Your task to perform on an android device: Open Android settings Image 0: 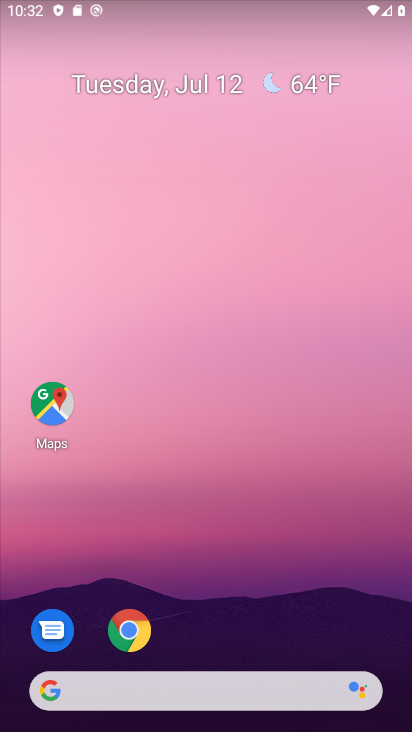
Step 0: drag from (293, 648) to (405, 0)
Your task to perform on an android device: Open Android settings Image 1: 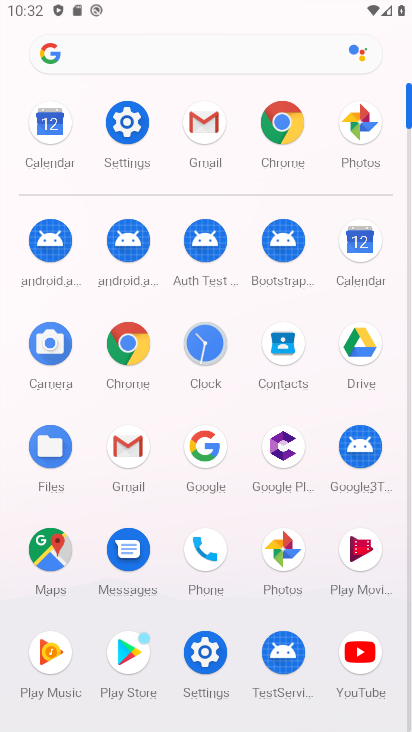
Step 1: click (134, 140)
Your task to perform on an android device: Open Android settings Image 2: 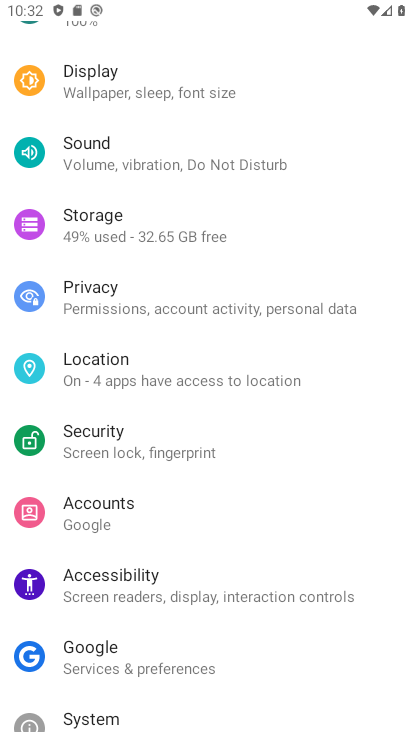
Step 2: drag from (357, 211) to (382, 319)
Your task to perform on an android device: Open Android settings Image 3: 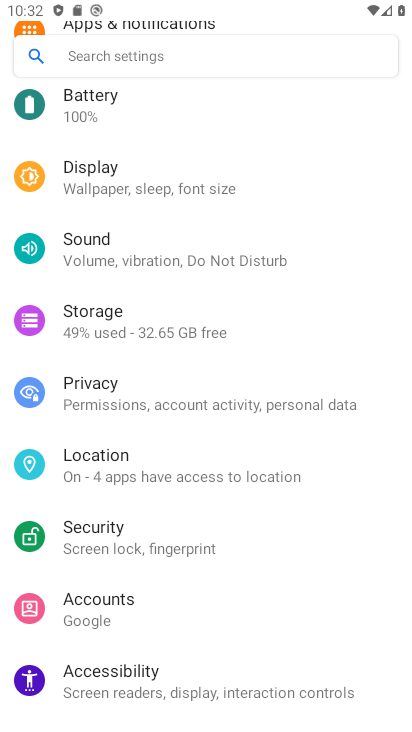
Step 3: drag from (379, 270) to (381, 324)
Your task to perform on an android device: Open Android settings Image 4: 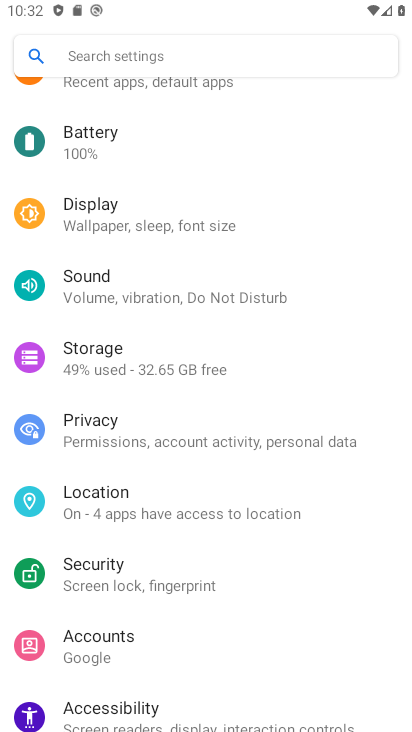
Step 4: drag from (376, 267) to (378, 349)
Your task to perform on an android device: Open Android settings Image 5: 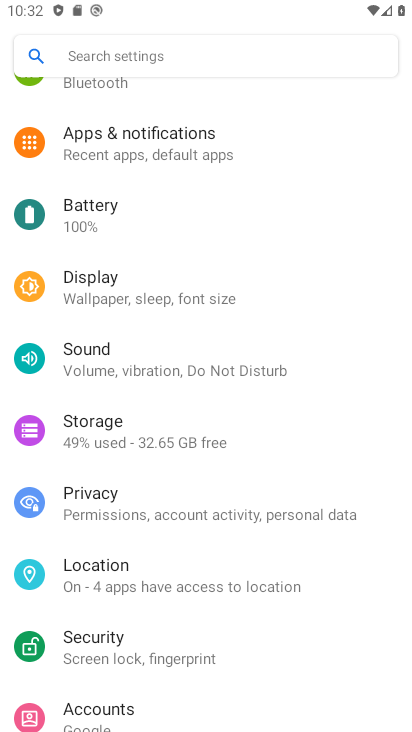
Step 5: drag from (362, 262) to (362, 329)
Your task to perform on an android device: Open Android settings Image 6: 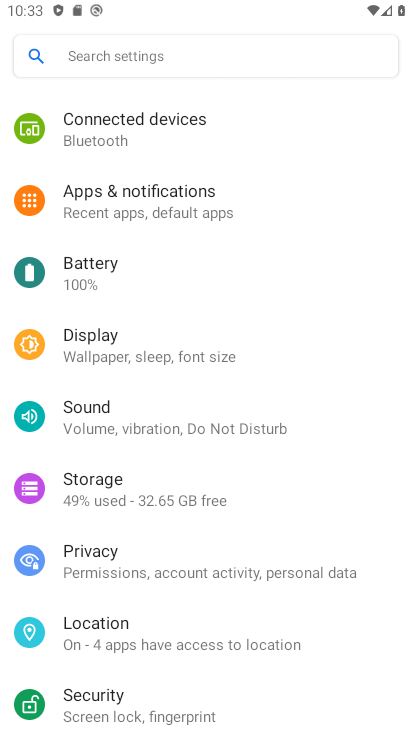
Step 6: drag from (368, 262) to (364, 362)
Your task to perform on an android device: Open Android settings Image 7: 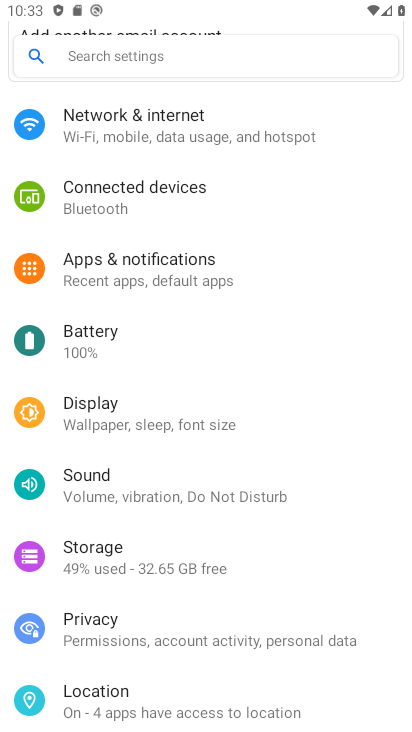
Step 7: drag from (360, 401) to (359, 333)
Your task to perform on an android device: Open Android settings Image 8: 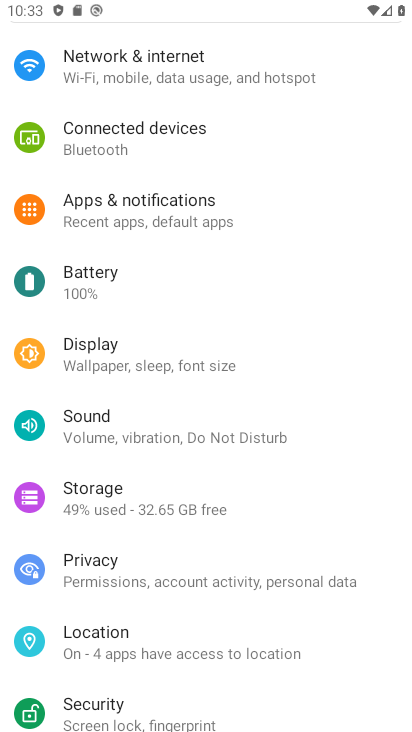
Step 8: drag from (351, 353) to (352, 284)
Your task to perform on an android device: Open Android settings Image 9: 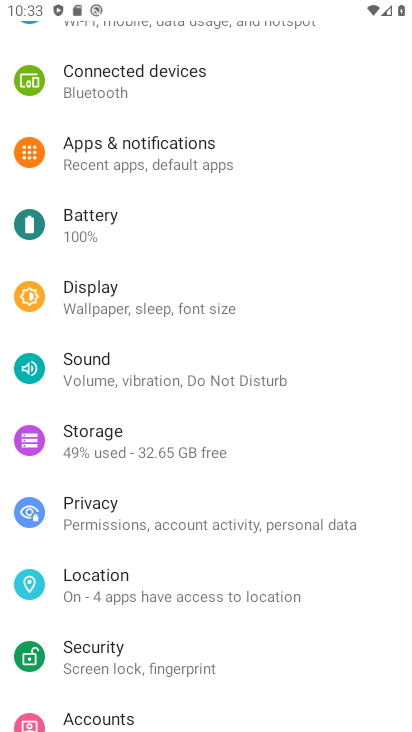
Step 9: drag from (348, 363) to (354, 289)
Your task to perform on an android device: Open Android settings Image 10: 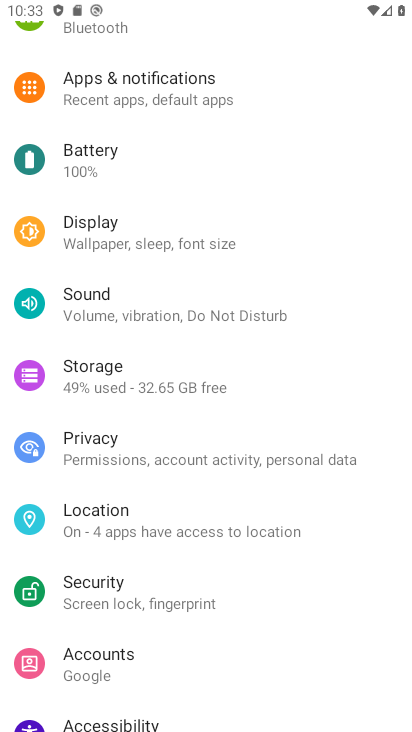
Step 10: drag from (345, 352) to (354, 287)
Your task to perform on an android device: Open Android settings Image 11: 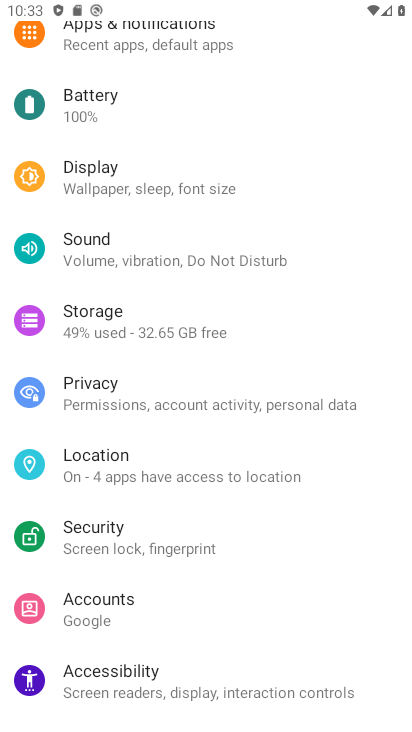
Step 11: drag from (352, 323) to (368, 262)
Your task to perform on an android device: Open Android settings Image 12: 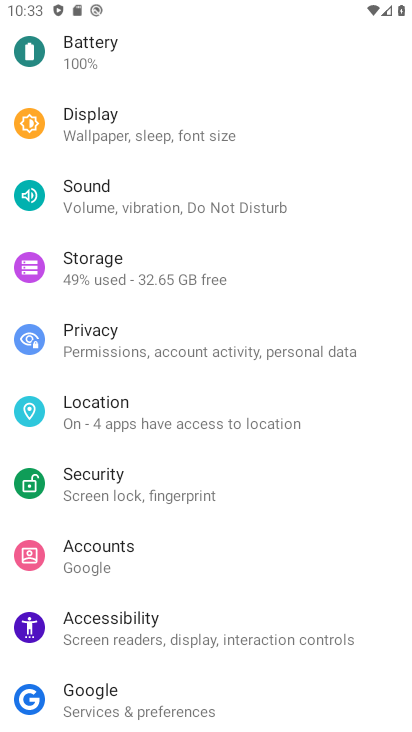
Step 12: drag from (375, 319) to (379, 260)
Your task to perform on an android device: Open Android settings Image 13: 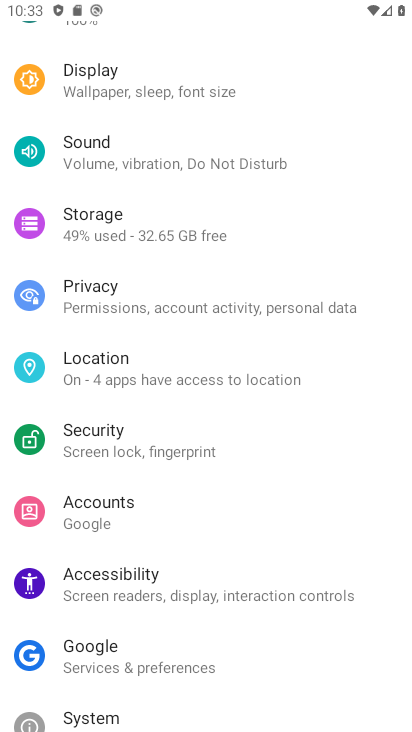
Step 13: drag from (363, 351) to (361, 268)
Your task to perform on an android device: Open Android settings Image 14: 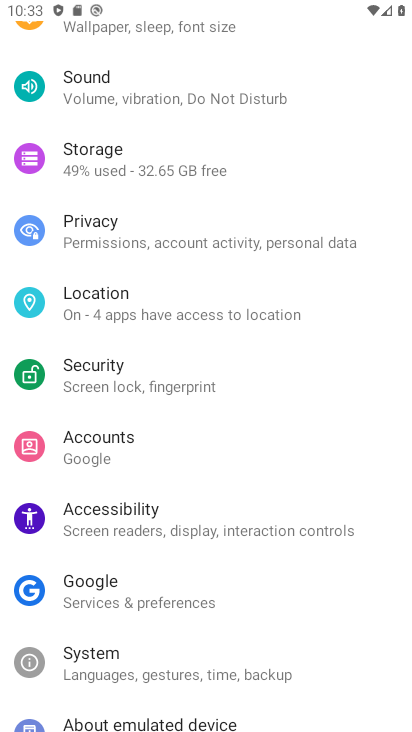
Step 14: drag from (361, 377) to (362, 295)
Your task to perform on an android device: Open Android settings Image 15: 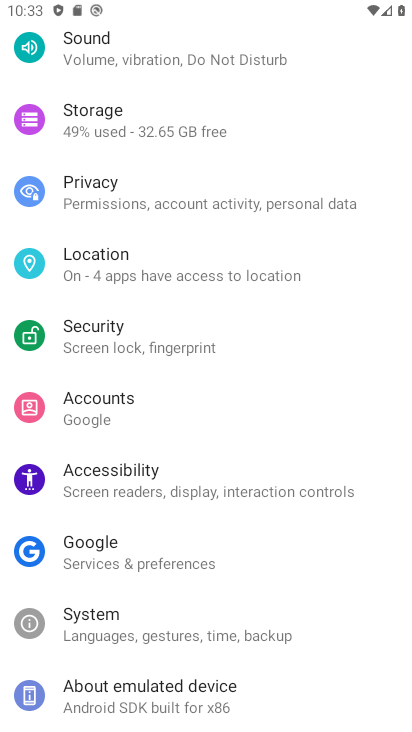
Step 15: drag from (359, 382) to (358, 318)
Your task to perform on an android device: Open Android settings Image 16: 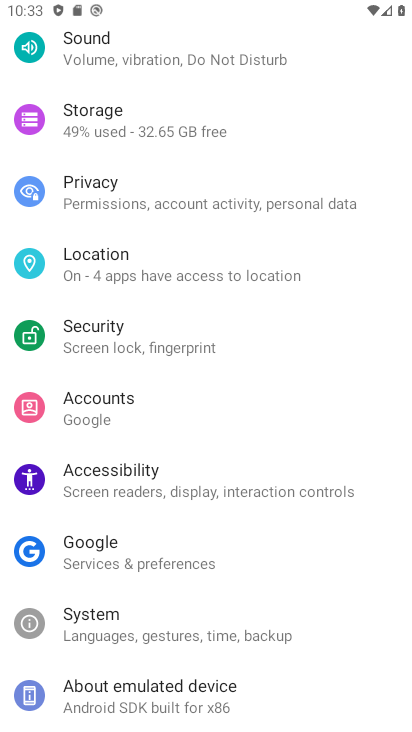
Step 16: click (260, 638)
Your task to perform on an android device: Open Android settings Image 17: 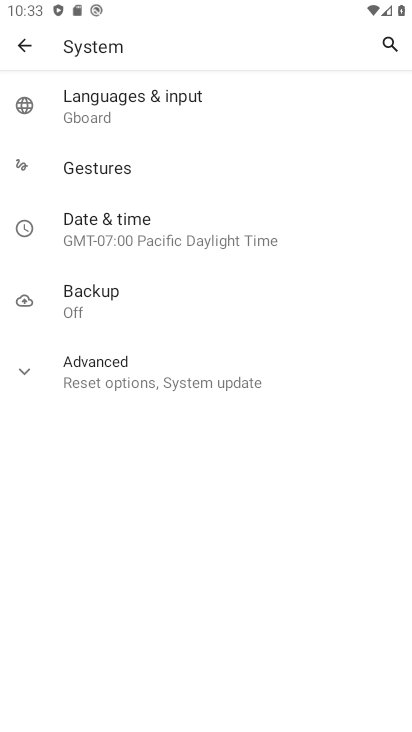
Step 17: click (196, 384)
Your task to perform on an android device: Open Android settings Image 18: 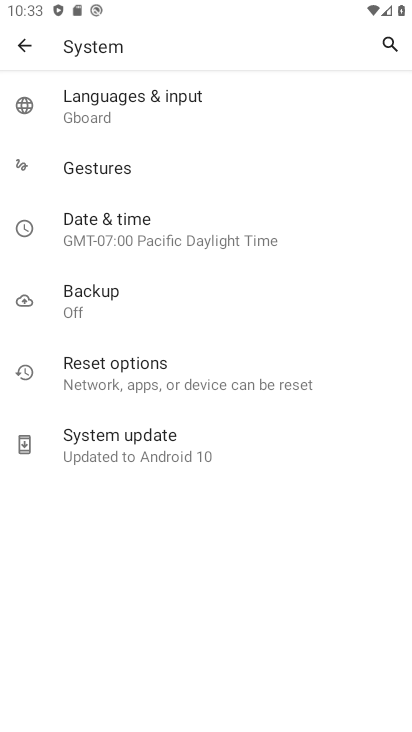
Step 18: task complete